Your task to perform on an android device: remove spam from my inbox in the gmail app Image 0: 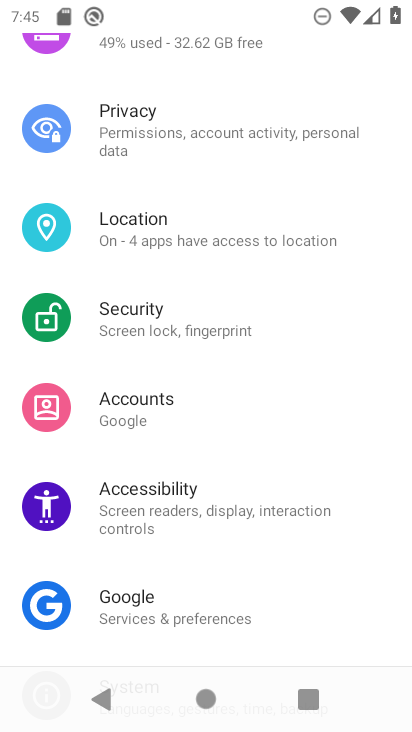
Step 0: press home button
Your task to perform on an android device: remove spam from my inbox in the gmail app Image 1: 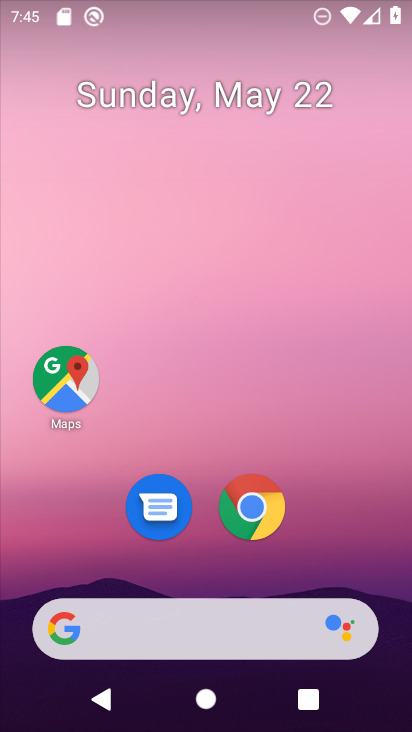
Step 1: drag from (242, 696) to (239, 13)
Your task to perform on an android device: remove spam from my inbox in the gmail app Image 2: 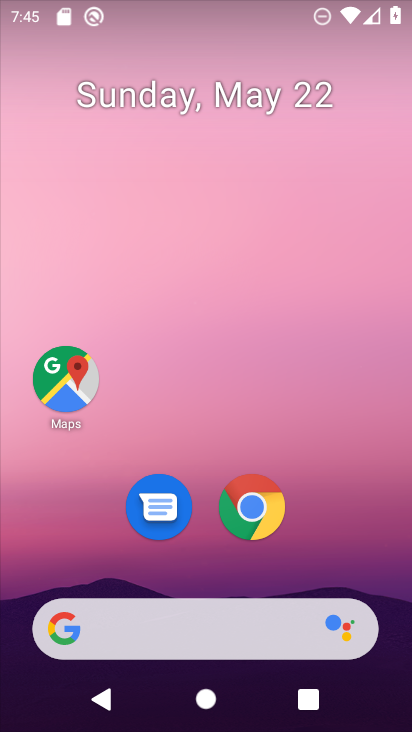
Step 2: drag from (271, 702) to (220, 16)
Your task to perform on an android device: remove spam from my inbox in the gmail app Image 3: 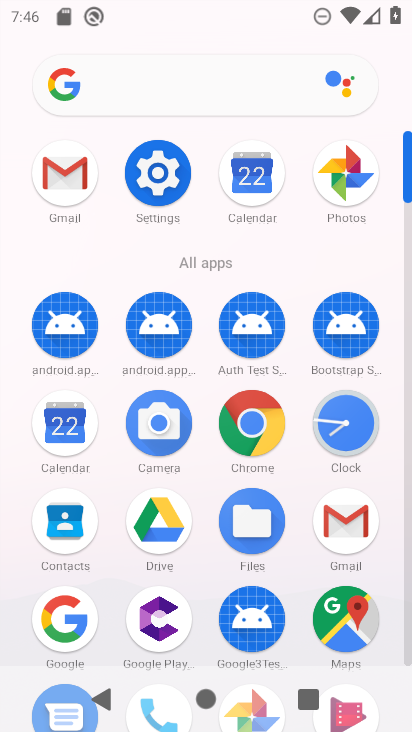
Step 3: click (63, 167)
Your task to perform on an android device: remove spam from my inbox in the gmail app Image 4: 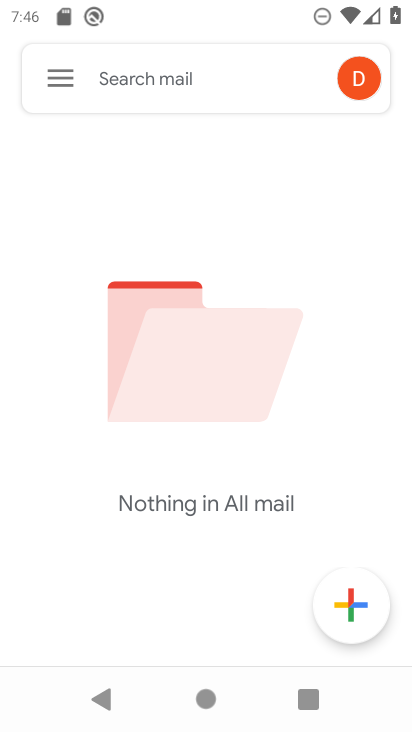
Step 4: click (46, 72)
Your task to perform on an android device: remove spam from my inbox in the gmail app Image 5: 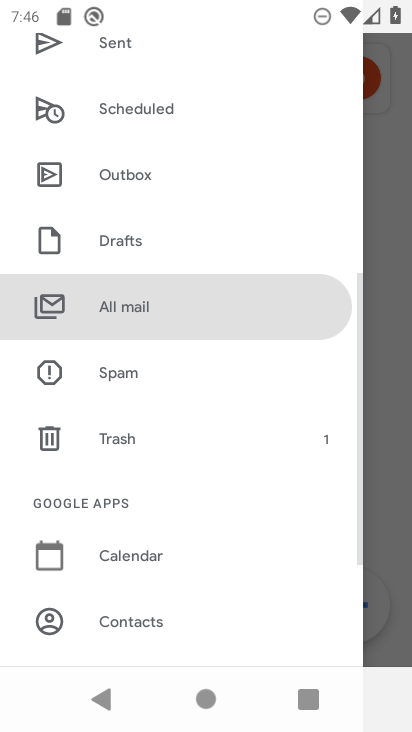
Step 5: click (154, 364)
Your task to perform on an android device: remove spam from my inbox in the gmail app Image 6: 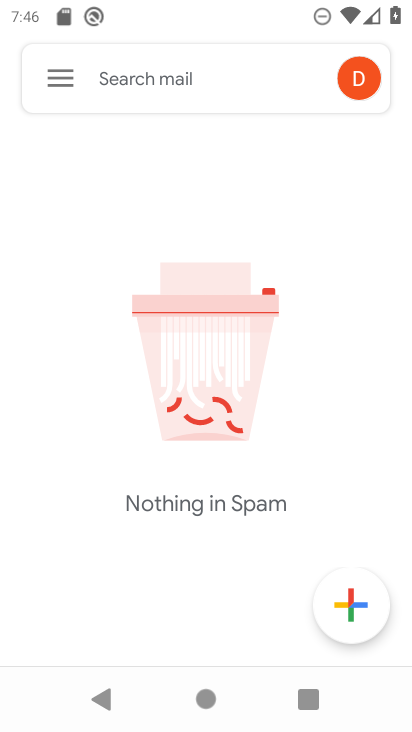
Step 6: task complete